Your task to perform on an android device: open wifi settings Image 0: 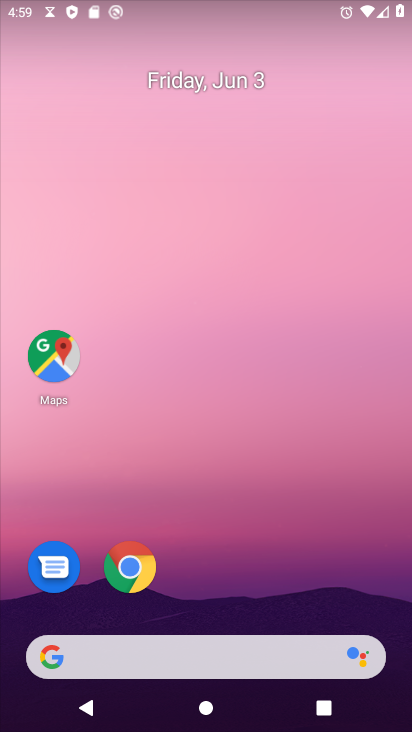
Step 0: drag from (333, 574) to (171, 87)
Your task to perform on an android device: open wifi settings Image 1: 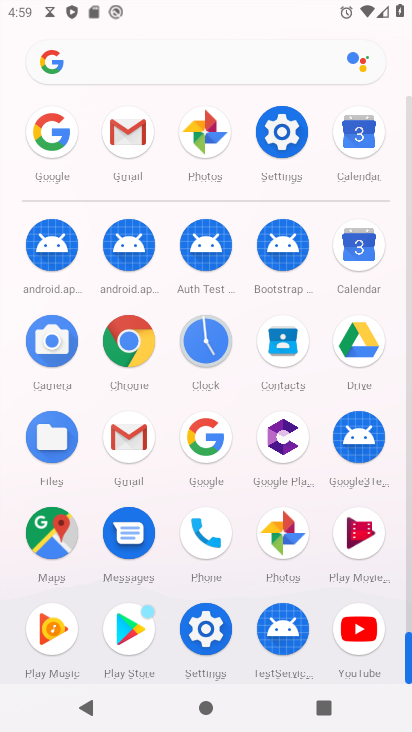
Step 1: click (283, 133)
Your task to perform on an android device: open wifi settings Image 2: 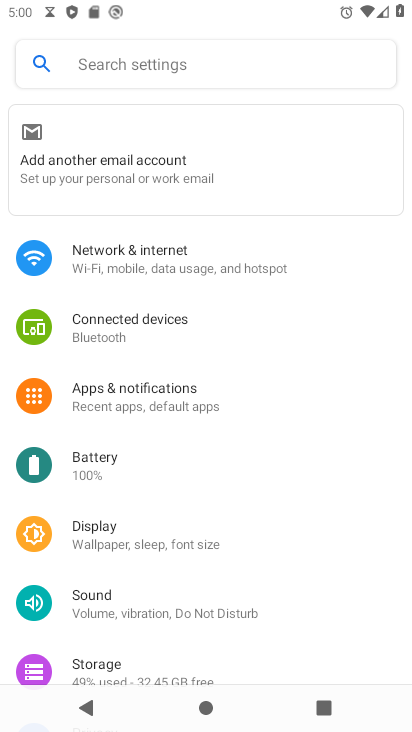
Step 2: click (162, 255)
Your task to perform on an android device: open wifi settings Image 3: 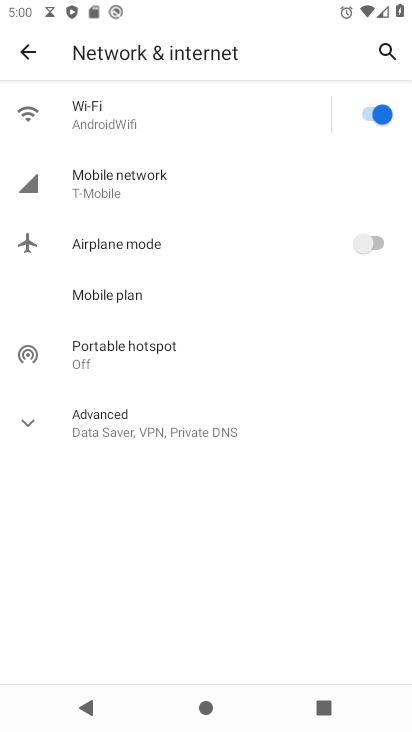
Step 3: click (99, 119)
Your task to perform on an android device: open wifi settings Image 4: 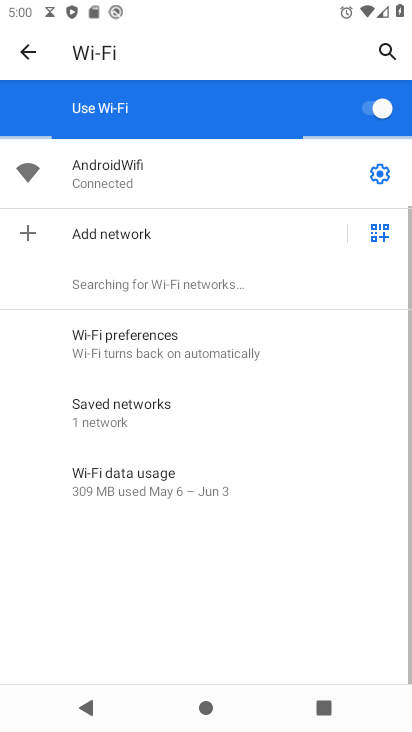
Step 4: click (379, 174)
Your task to perform on an android device: open wifi settings Image 5: 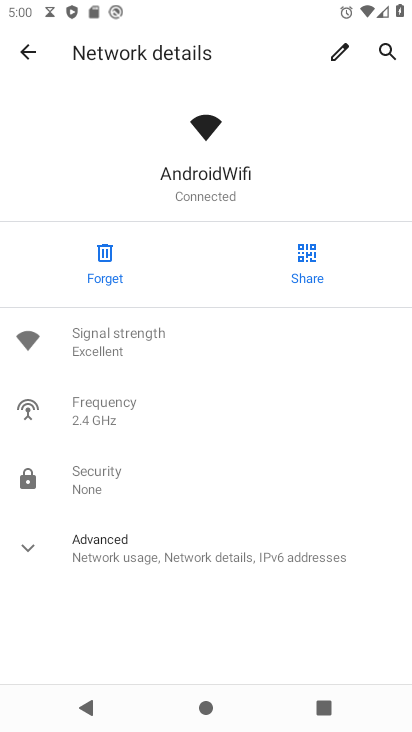
Step 5: task complete